Your task to perform on an android device: Go to calendar. Show me events next week Image 0: 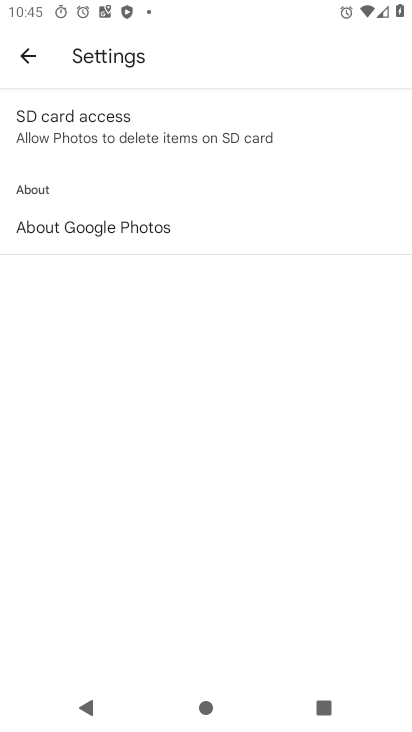
Step 0: press home button
Your task to perform on an android device: Go to calendar. Show me events next week Image 1: 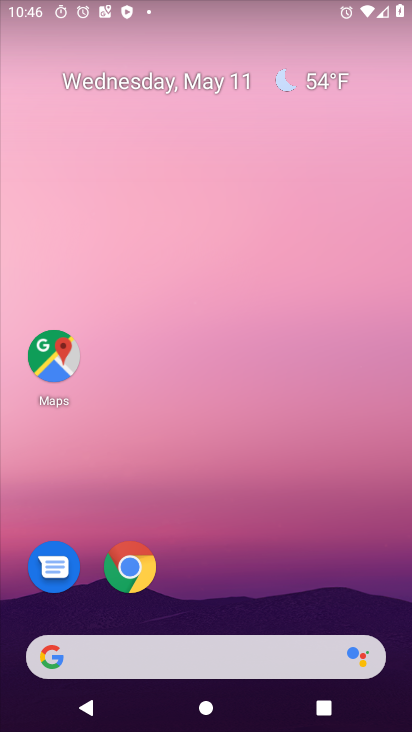
Step 1: drag from (211, 602) to (228, 3)
Your task to perform on an android device: Go to calendar. Show me events next week Image 2: 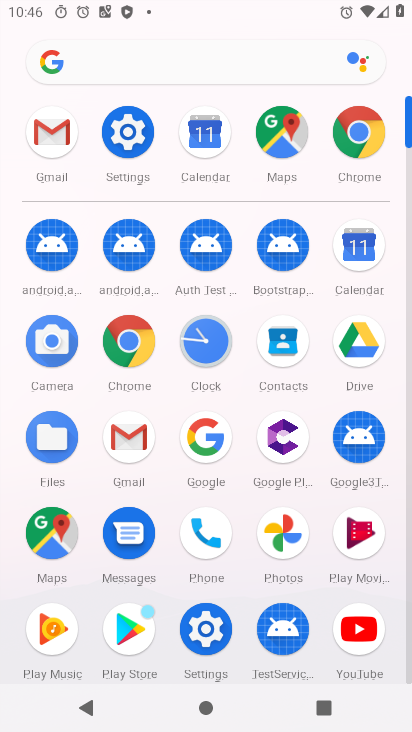
Step 2: click (361, 245)
Your task to perform on an android device: Go to calendar. Show me events next week Image 3: 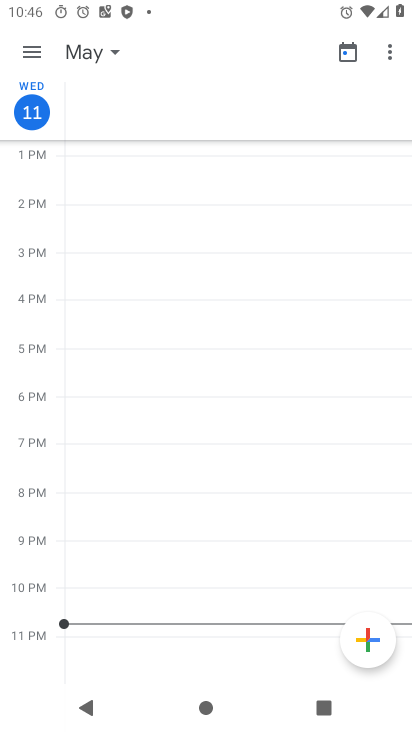
Step 3: click (27, 61)
Your task to perform on an android device: Go to calendar. Show me events next week Image 4: 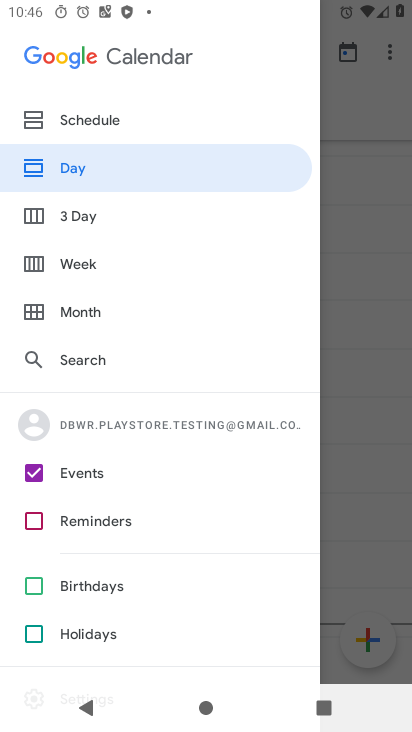
Step 4: click (100, 271)
Your task to perform on an android device: Go to calendar. Show me events next week Image 5: 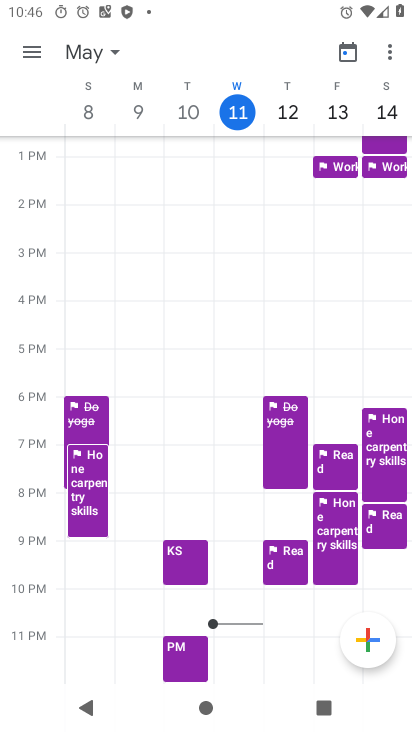
Step 5: task complete